Your task to perform on an android device: Go to Google maps Image 0: 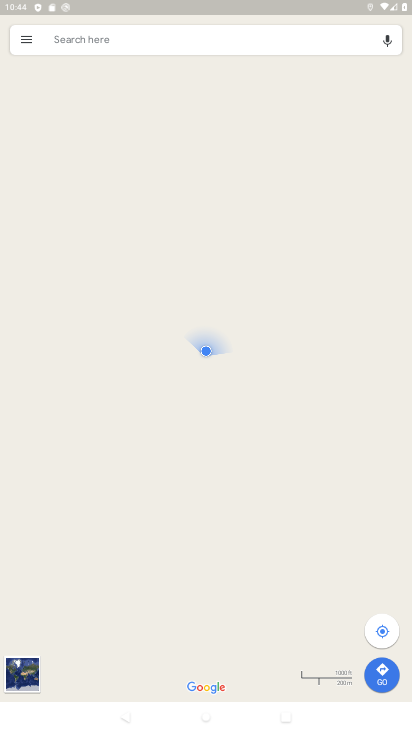
Step 0: task complete